Your task to perform on an android device: empty trash in the gmail app Image 0: 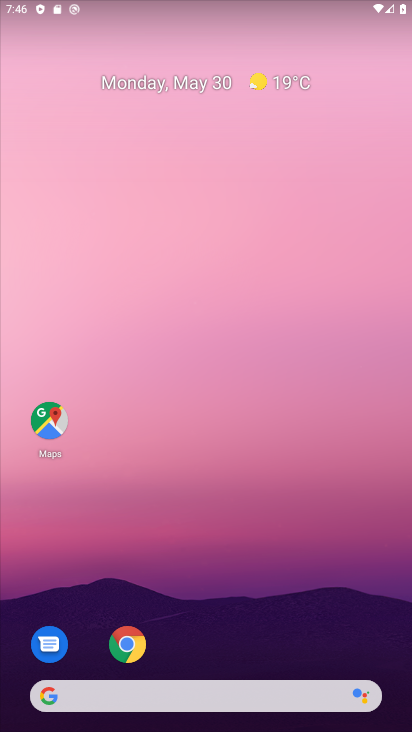
Step 0: drag from (215, 654) to (244, 239)
Your task to perform on an android device: empty trash in the gmail app Image 1: 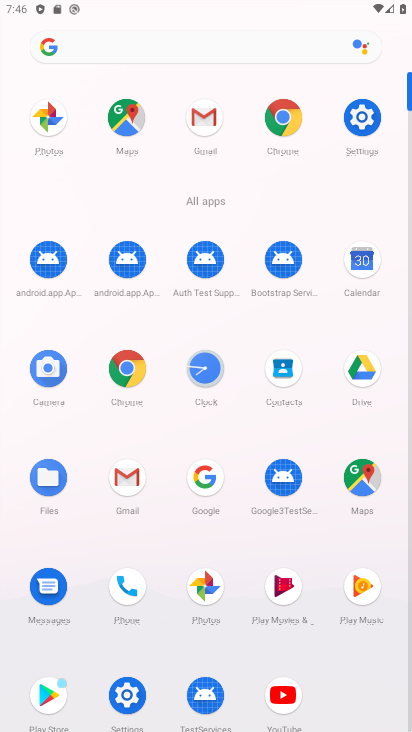
Step 1: click (192, 121)
Your task to perform on an android device: empty trash in the gmail app Image 2: 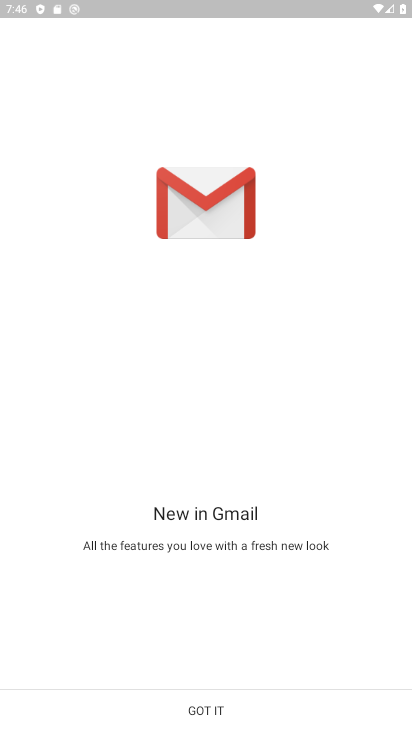
Step 2: click (194, 710)
Your task to perform on an android device: empty trash in the gmail app Image 3: 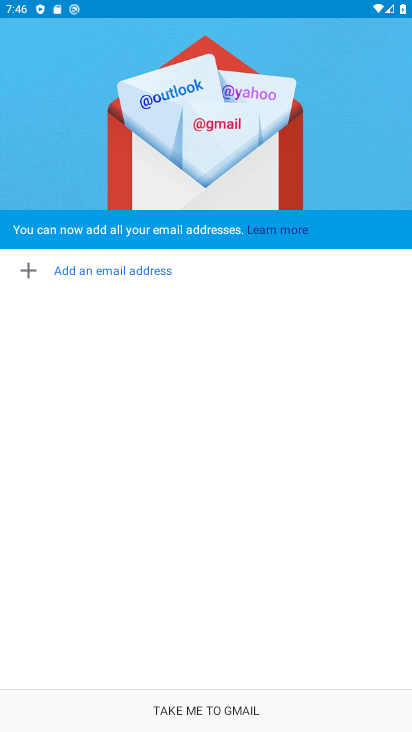
Step 3: click (194, 710)
Your task to perform on an android device: empty trash in the gmail app Image 4: 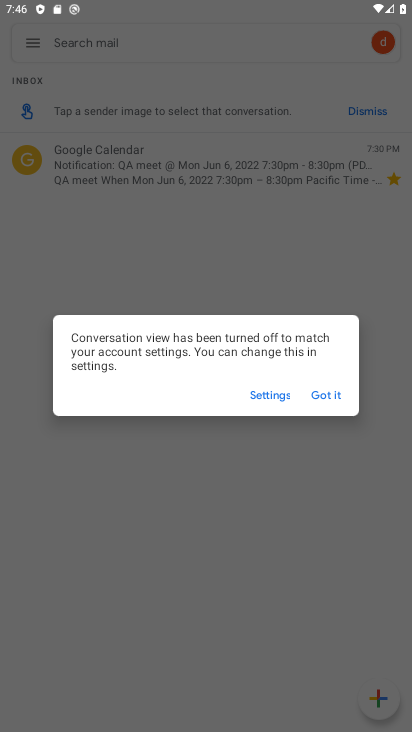
Step 4: click (317, 391)
Your task to perform on an android device: empty trash in the gmail app Image 5: 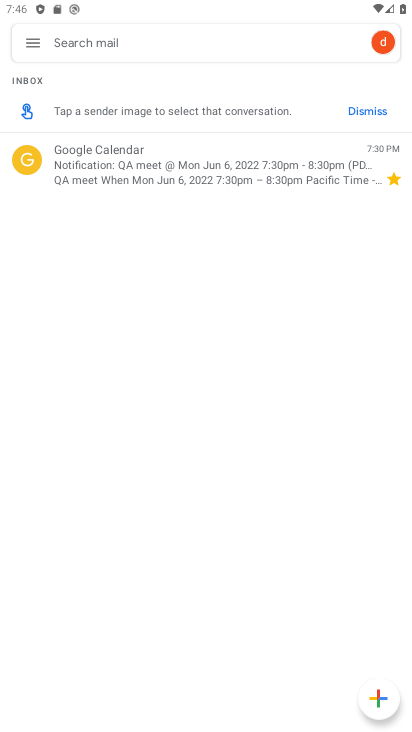
Step 5: click (32, 40)
Your task to perform on an android device: empty trash in the gmail app Image 6: 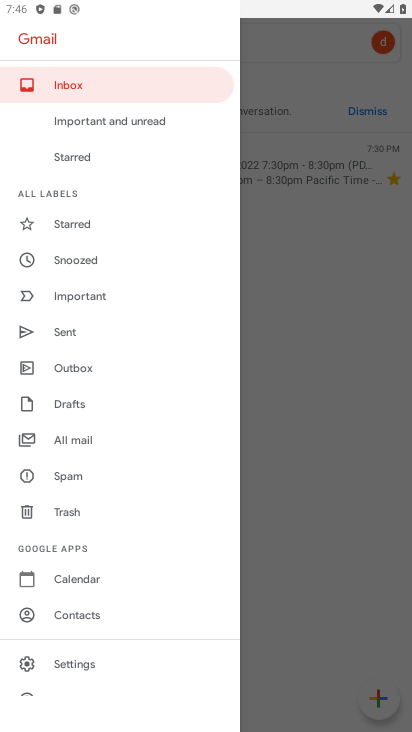
Step 6: click (69, 513)
Your task to perform on an android device: empty trash in the gmail app Image 7: 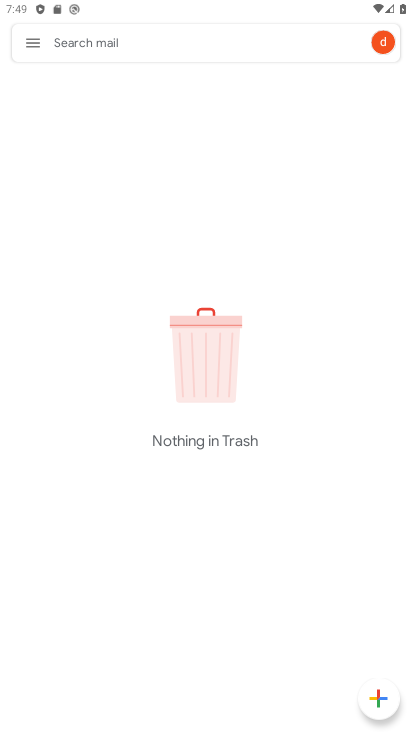
Step 7: task complete